Your task to perform on an android device: turn on data saver in the chrome app Image 0: 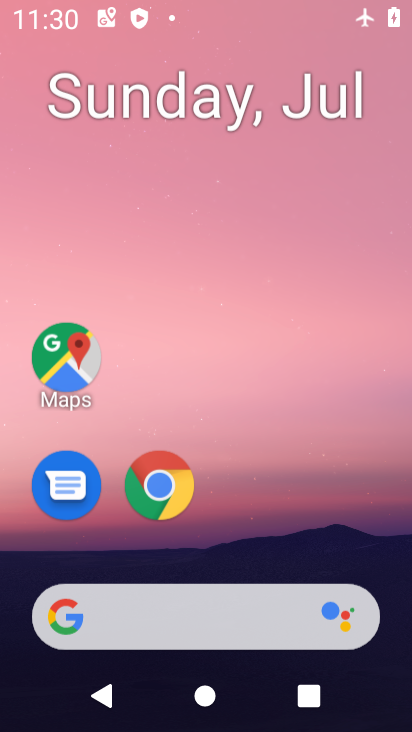
Step 0: press home button
Your task to perform on an android device: turn on data saver in the chrome app Image 1: 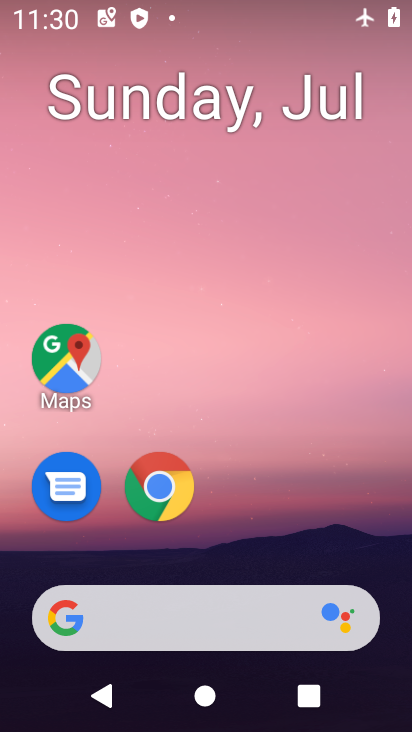
Step 1: drag from (367, 534) to (359, 110)
Your task to perform on an android device: turn on data saver in the chrome app Image 2: 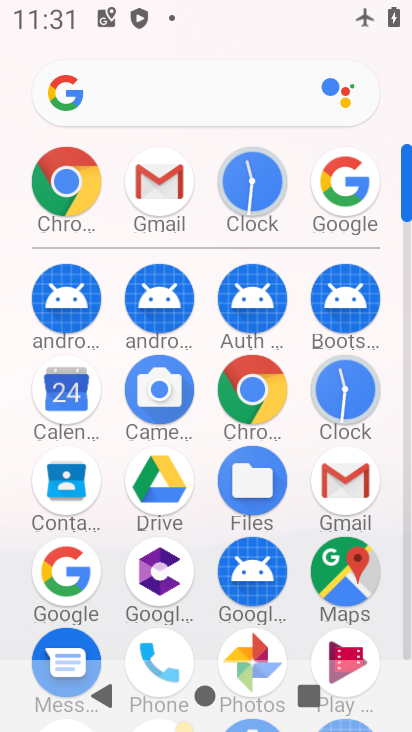
Step 2: click (262, 395)
Your task to perform on an android device: turn on data saver in the chrome app Image 3: 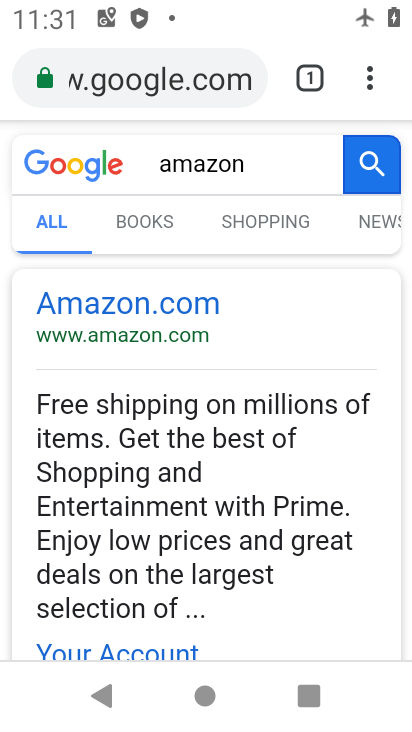
Step 3: click (371, 80)
Your task to perform on an android device: turn on data saver in the chrome app Image 4: 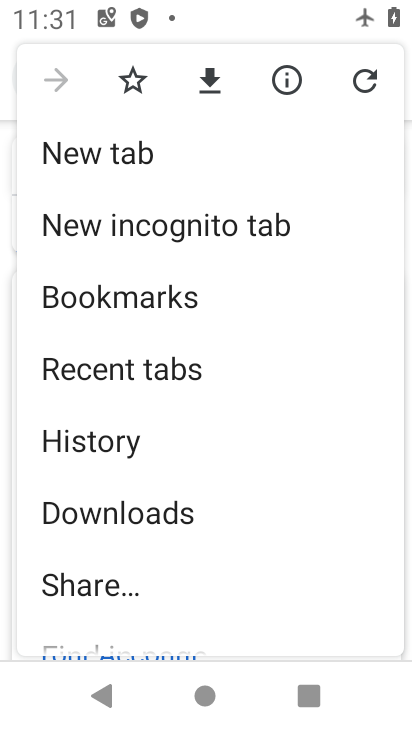
Step 4: drag from (341, 435) to (343, 337)
Your task to perform on an android device: turn on data saver in the chrome app Image 5: 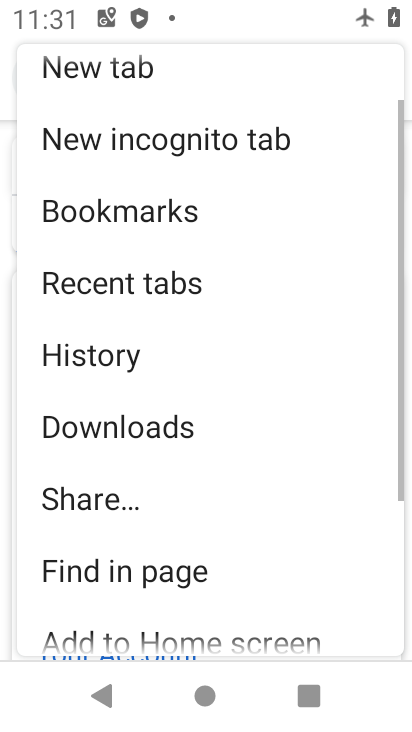
Step 5: drag from (319, 469) to (316, 372)
Your task to perform on an android device: turn on data saver in the chrome app Image 6: 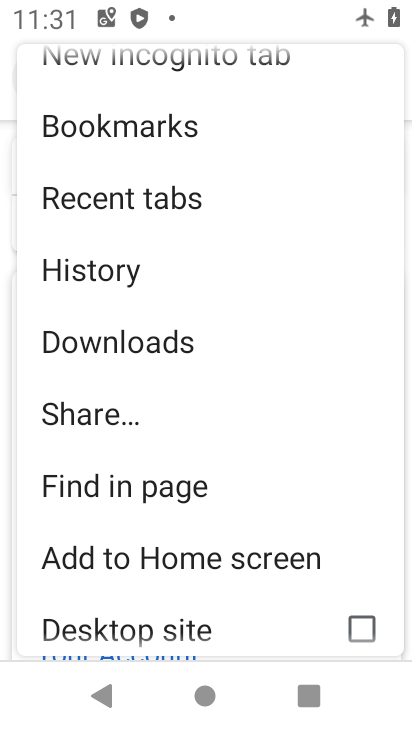
Step 6: drag from (294, 547) to (285, 438)
Your task to perform on an android device: turn on data saver in the chrome app Image 7: 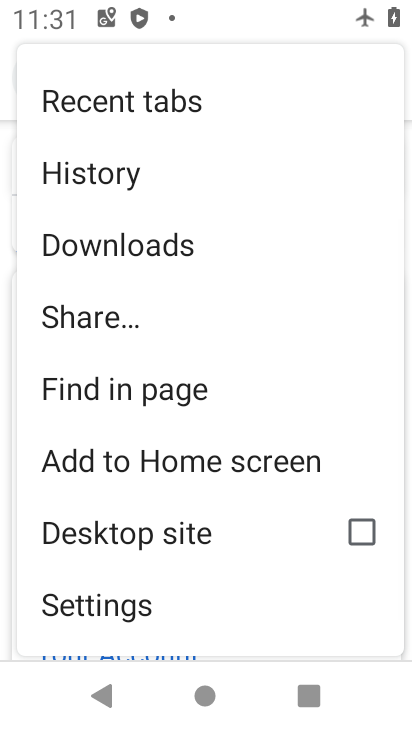
Step 7: drag from (268, 588) to (261, 462)
Your task to perform on an android device: turn on data saver in the chrome app Image 8: 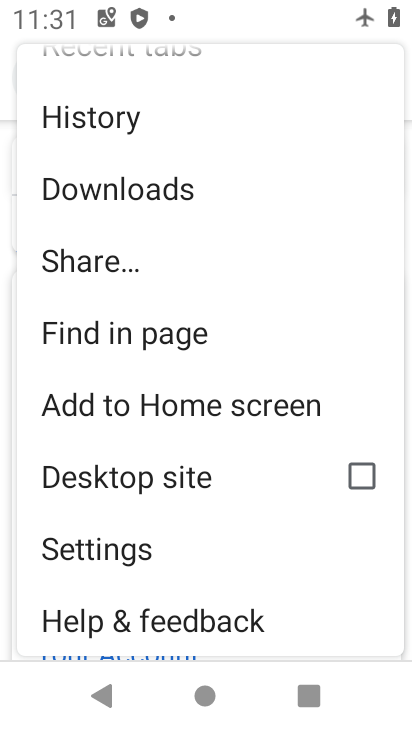
Step 8: click (255, 553)
Your task to perform on an android device: turn on data saver in the chrome app Image 9: 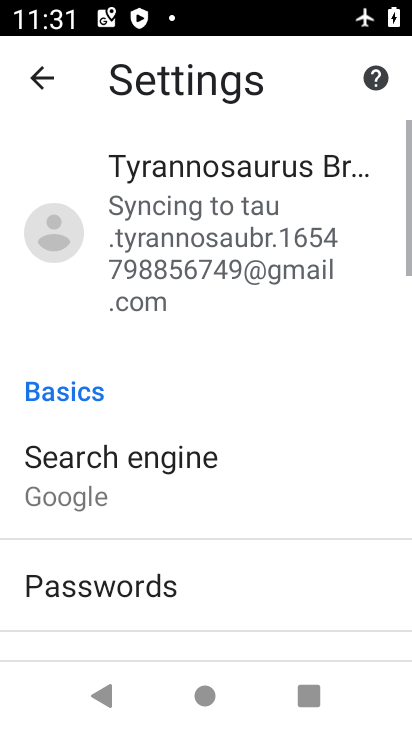
Step 9: drag from (283, 571) to (281, 465)
Your task to perform on an android device: turn on data saver in the chrome app Image 10: 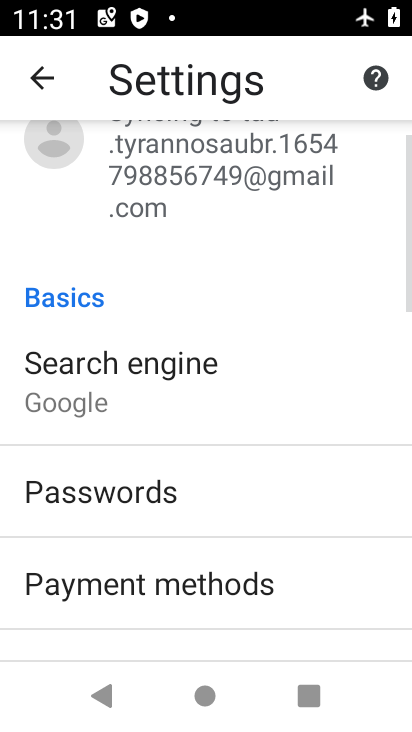
Step 10: drag from (304, 581) to (310, 498)
Your task to perform on an android device: turn on data saver in the chrome app Image 11: 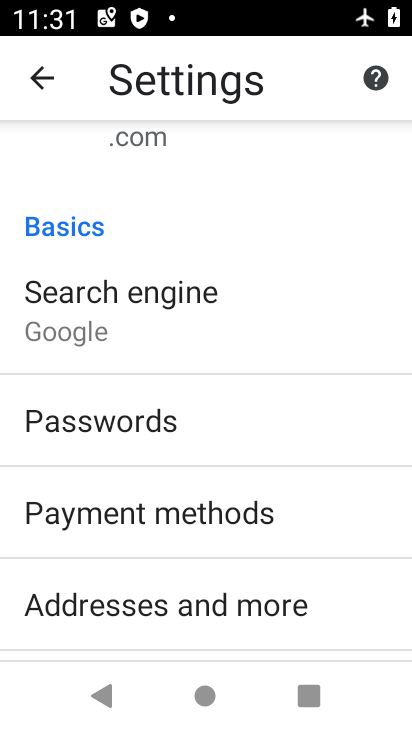
Step 11: drag from (327, 586) to (330, 486)
Your task to perform on an android device: turn on data saver in the chrome app Image 12: 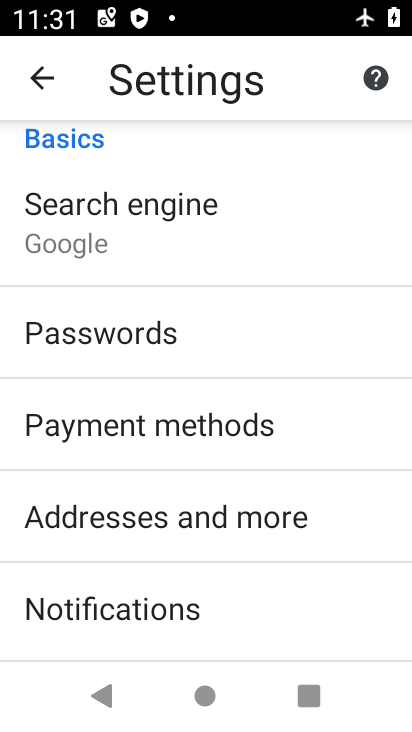
Step 12: drag from (336, 611) to (338, 454)
Your task to perform on an android device: turn on data saver in the chrome app Image 13: 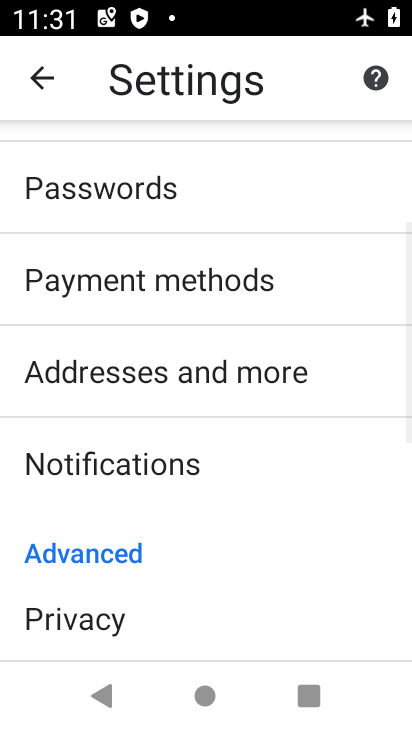
Step 13: drag from (338, 590) to (330, 449)
Your task to perform on an android device: turn on data saver in the chrome app Image 14: 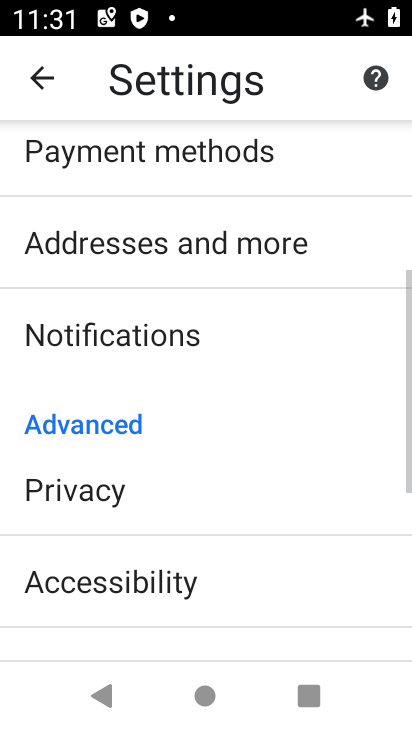
Step 14: drag from (327, 605) to (315, 453)
Your task to perform on an android device: turn on data saver in the chrome app Image 15: 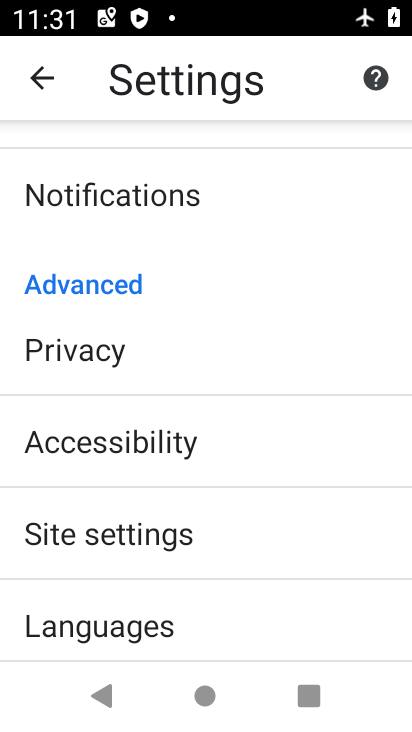
Step 15: drag from (292, 611) to (291, 463)
Your task to perform on an android device: turn on data saver in the chrome app Image 16: 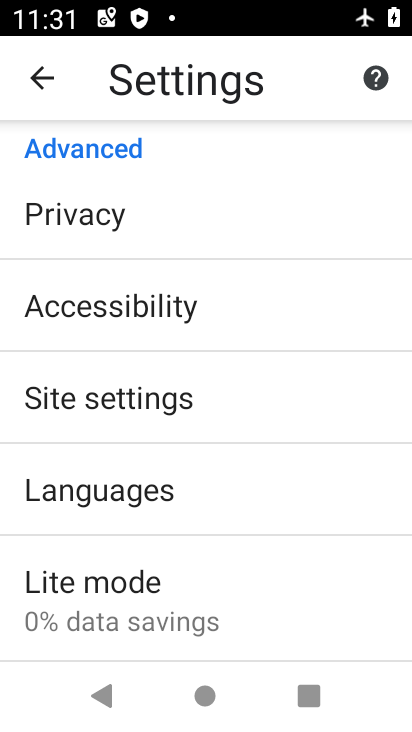
Step 16: click (286, 594)
Your task to perform on an android device: turn on data saver in the chrome app Image 17: 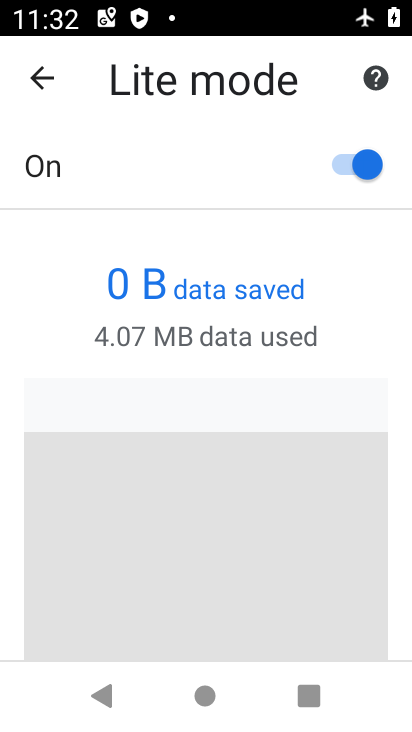
Step 17: task complete